Your task to perform on an android device: Search for a new eyeshadow Image 0: 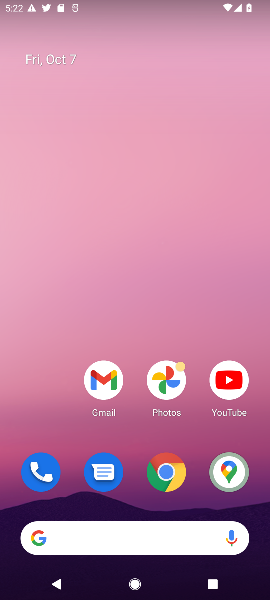
Step 0: click (163, 466)
Your task to perform on an android device: Search for a new eyeshadow Image 1: 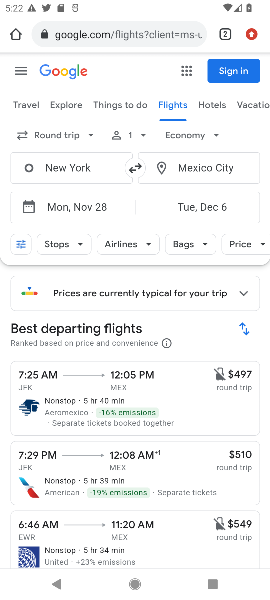
Step 1: click (141, 34)
Your task to perform on an android device: Search for a new eyeshadow Image 2: 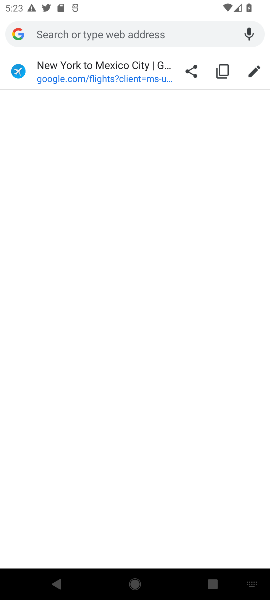
Step 2: type "new eyeshadow"
Your task to perform on an android device: Search for a new eyeshadow Image 3: 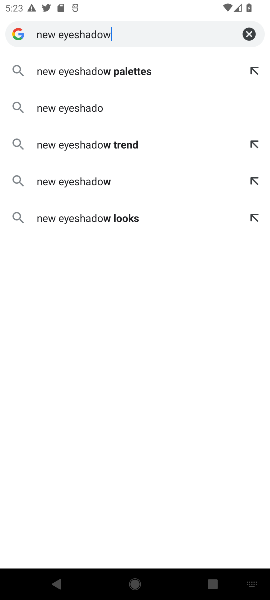
Step 3: type ""
Your task to perform on an android device: Search for a new eyeshadow Image 4: 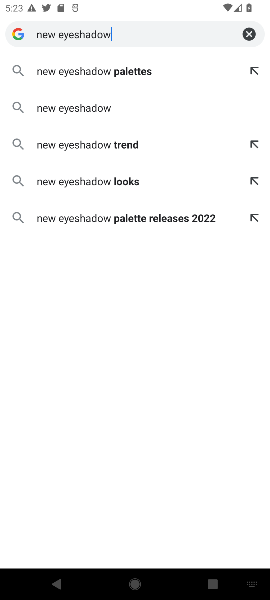
Step 4: press enter
Your task to perform on an android device: Search for a new eyeshadow Image 5: 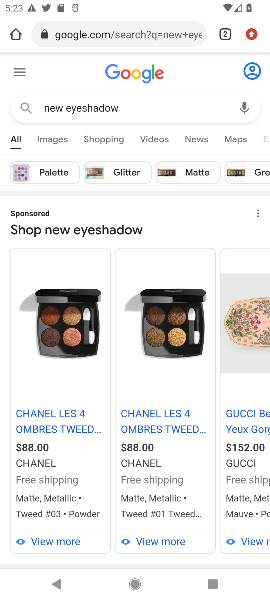
Step 5: drag from (154, 497) to (169, 274)
Your task to perform on an android device: Search for a new eyeshadow Image 6: 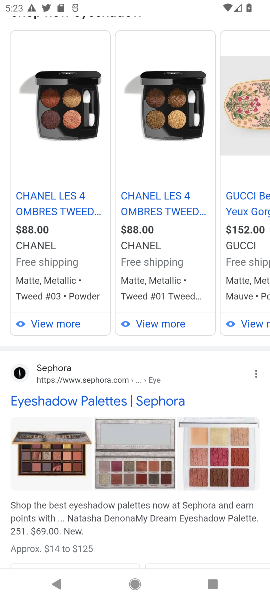
Step 6: click (123, 401)
Your task to perform on an android device: Search for a new eyeshadow Image 7: 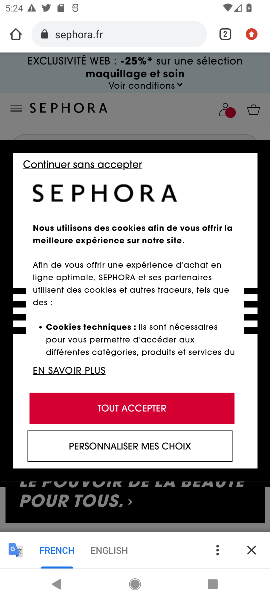
Step 7: task complete